Your task to perform on an android device: empty trash in google photos Image 0: 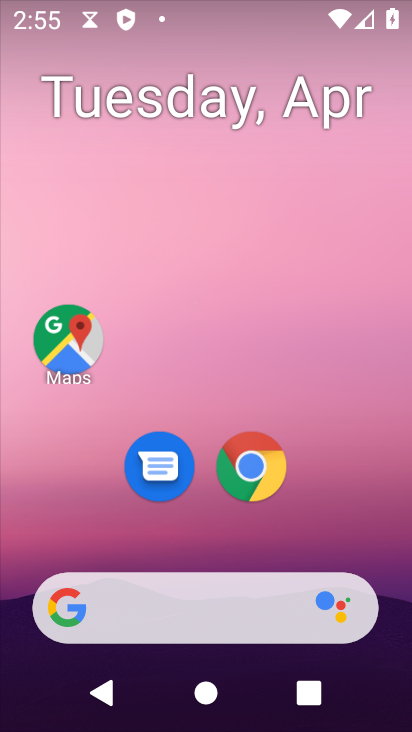
Step 0: drag from (246, 49) to (241, 14)
Your task to perform on an android device: empty trash in google photos Image 1: 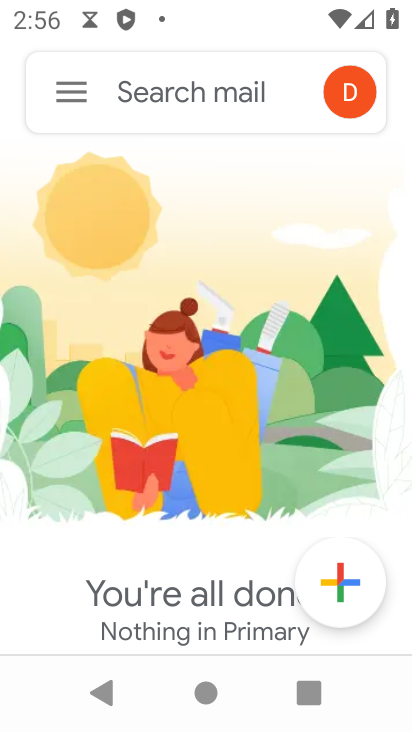
Step 1: press back button
Your task to perform on an android device: empty trash in google photos Image 2: 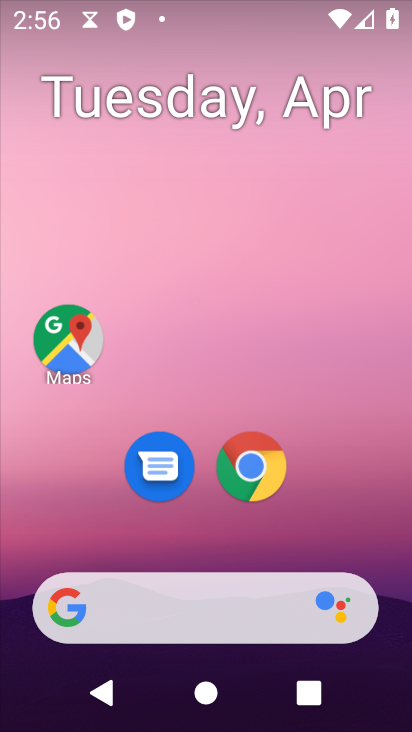
Step 2: drag from (307, 447) to (232, 1)
Your task to perform on an android device: empty trash in google photos Image 3: 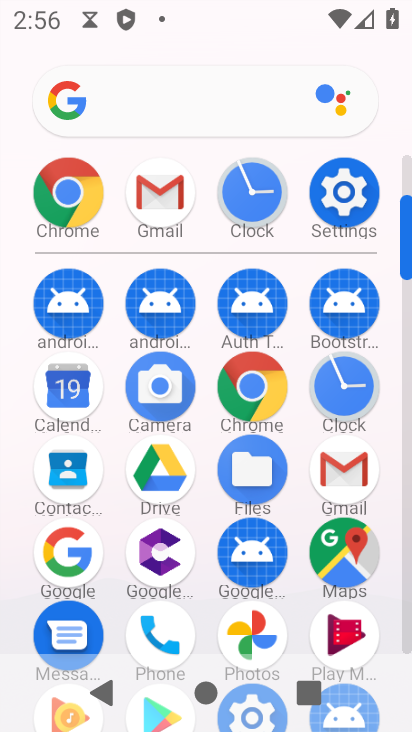
Step 3: drag from (5, 467) to (3, 243)
Your task to perform on an android device: empty trash in google photos Image 4: 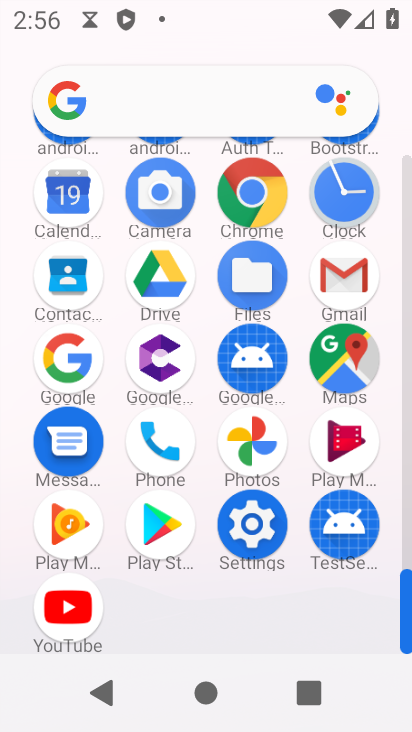
Step 4: click (251, 433)
Your task to perform on an android device: empty trash in google photos Image 5: 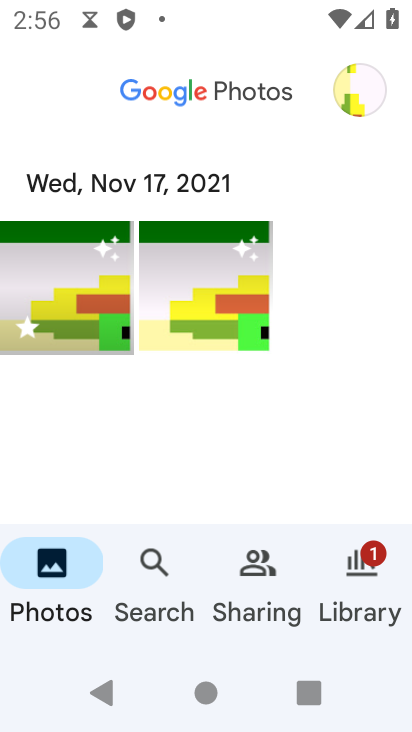
Step 5: click (357, 566)
Your task to perform on an android device: empty trash in google photos Image 6: 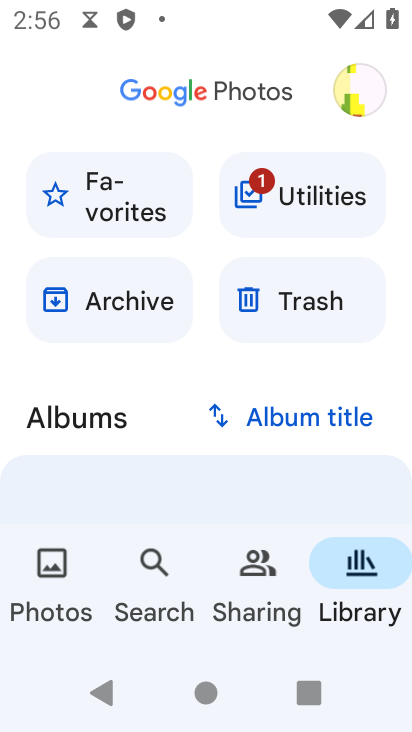
Step 6: click (373, 80)
Your task to perform on an android device: empty trash in google photos Image 7: 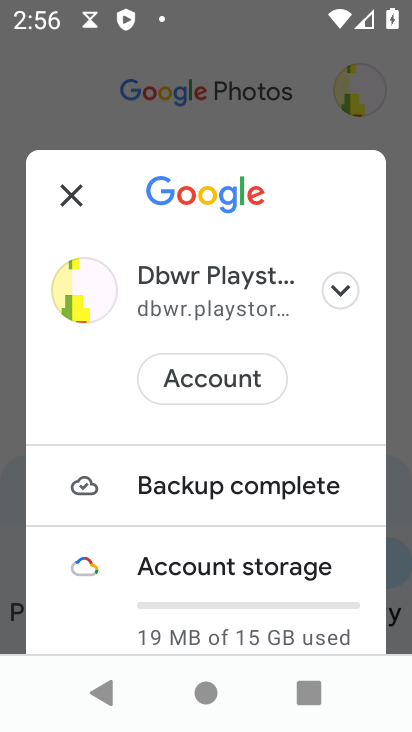
Step 7: click (76, 190)
Your task to perform on an android device: empty trash in google photos Image 8: 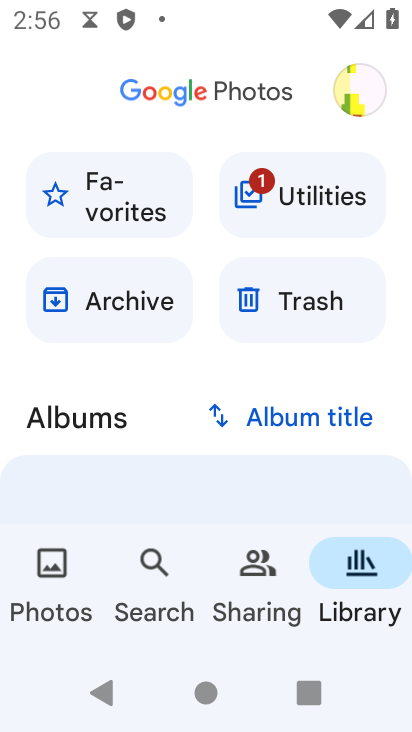
Step 8: click (287, 309)
Your task to perform on an android device: empty trash in google photos Image 9: 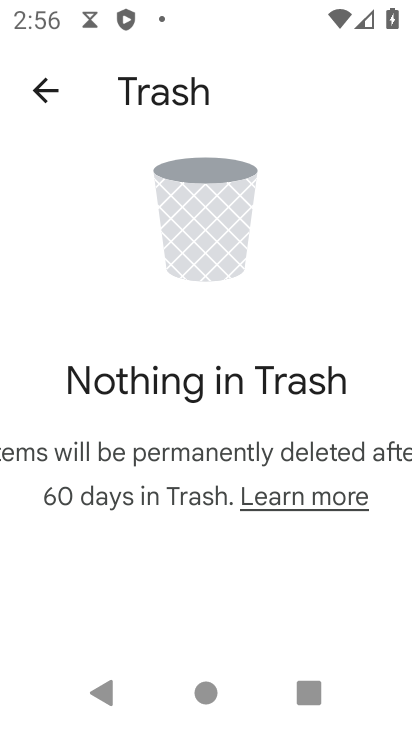
Step 9: task complete